Your task to perform on an android device: open app "Messages" (install if not already installed) and enter user name: "Hersey@inbox.com" and password: "facings" Image 0: 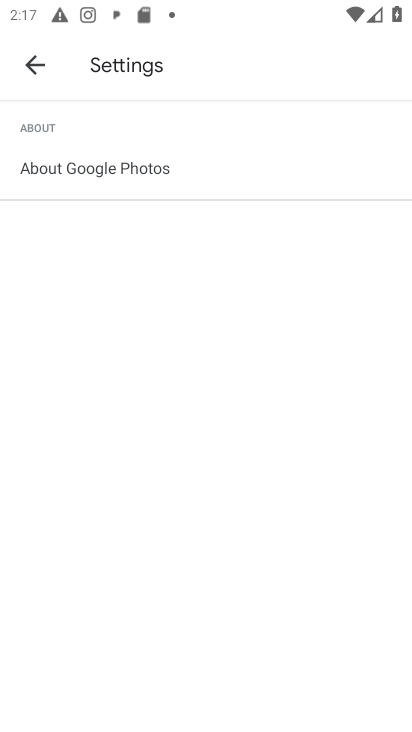
Step 0: press home button
Your task to perform on an android device: open app "Messages" (install if not already installed) and enter user name: "Hersey@inbox.com" and password: "facings" Image 1: 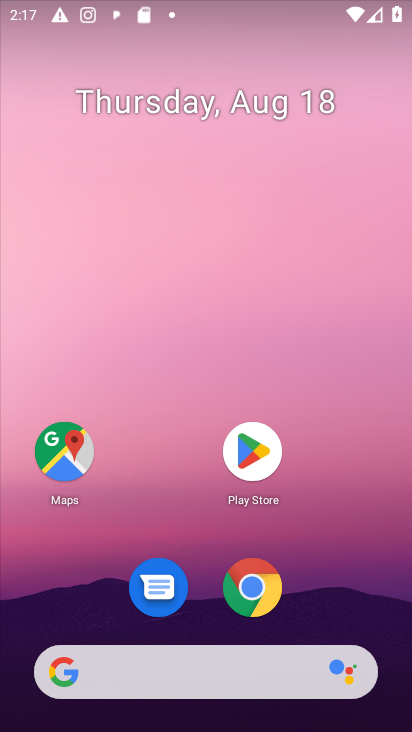
Step 1: click (242, 448)
Your task to perform on an android device: open app "Messages" (install if not already installed) and enter user name: "Hersey@inbox.com" and password: "facings" Image 2: 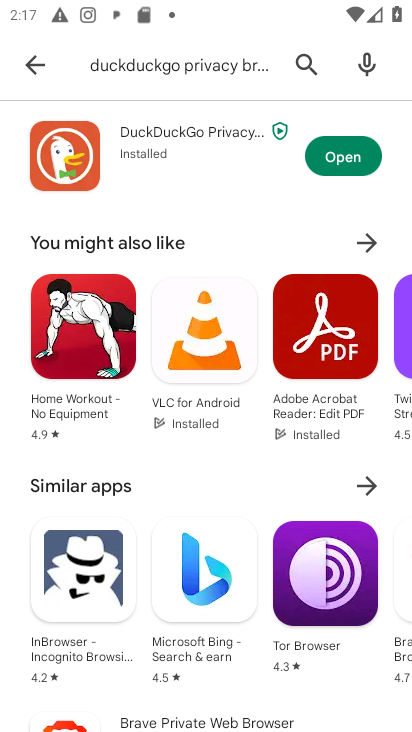
Step 2: click (302, 60)
Your task to perform on an android device: open app "Messages" (install if not already installed) and enter user name: "Hersey@inbox.com" and password: "facings" Image 3: 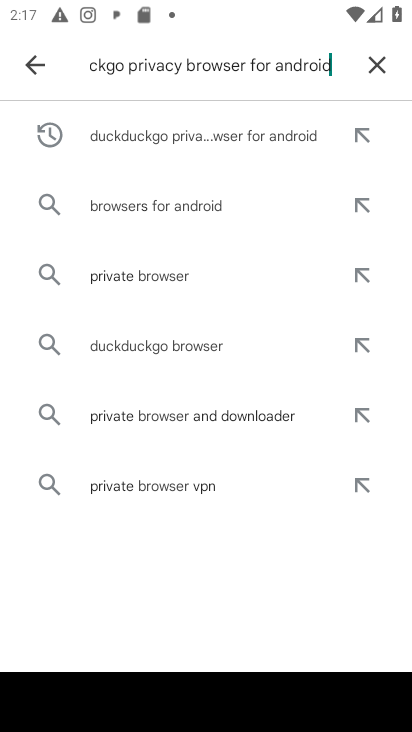
Step 3: click (371, 59)
Your task to perform on an android device: open app "Messages" (install if not already installed) and enter user name: "Hersey@inbox.com" and password: "facings" Image 4: 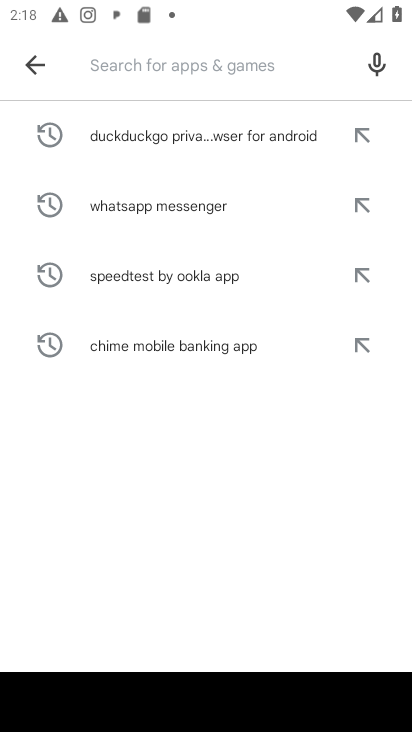
Step 4: type "Messages"
Your task to perform on an android device: open app "Messages" (install if not already installed) and enter user name: "Hersey@inbox.com" and password: "facings" Image 5: 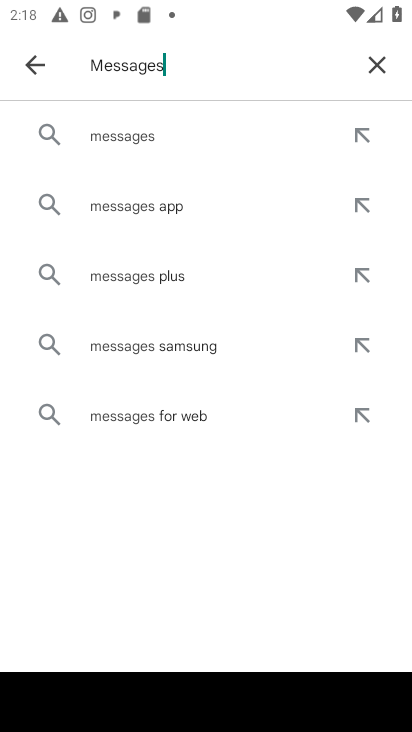
Step 5: click (138, 132)
Your task to perform on an android device: open app "Messages" (install if not already installed) and enter user name: "Hersey@inbox.com" and password: "facings" Image 6: 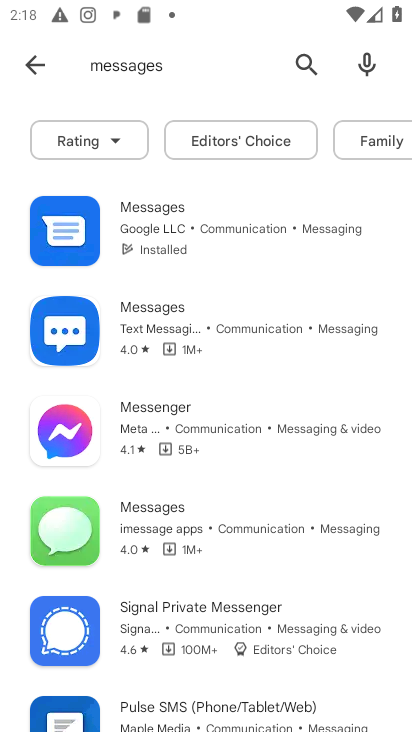
Step 6: click (188, 220)
Your task to perform on an android device: open app "Messages" (install if not already installed) and enter user name: "Hersey@inbox.com" and password: "facings" Image 7: 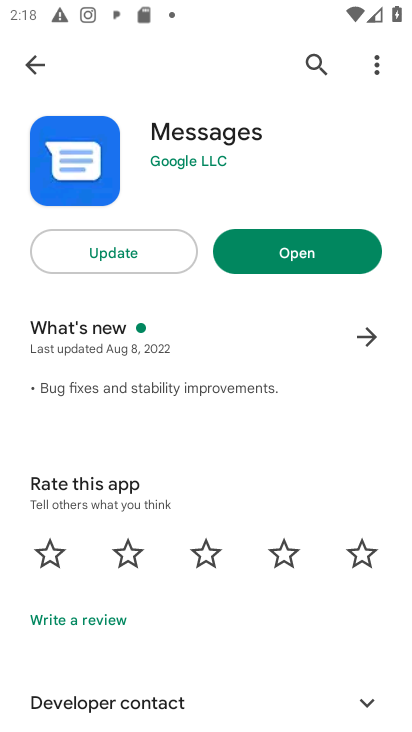
Step 7: click (304, 259)
Your task to perform on an android device: open app "Messages" (install if not already installed) and enter user name: "Hersey@inbox.com" and password: "facings" Image 8: 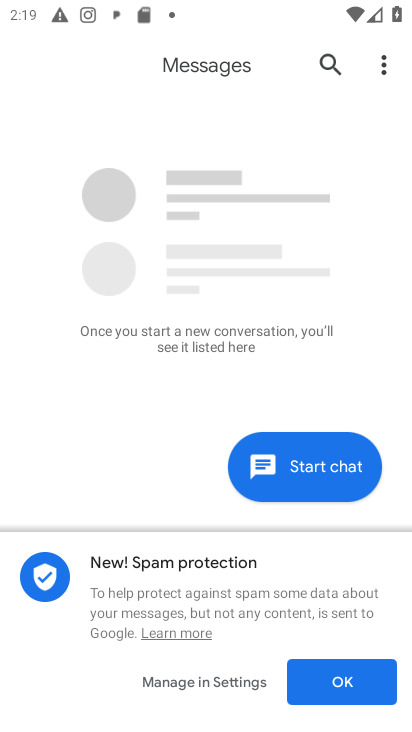
Step 8: task complete